Your task to perform on an android device: delete a single message in the gmail app Image 0: 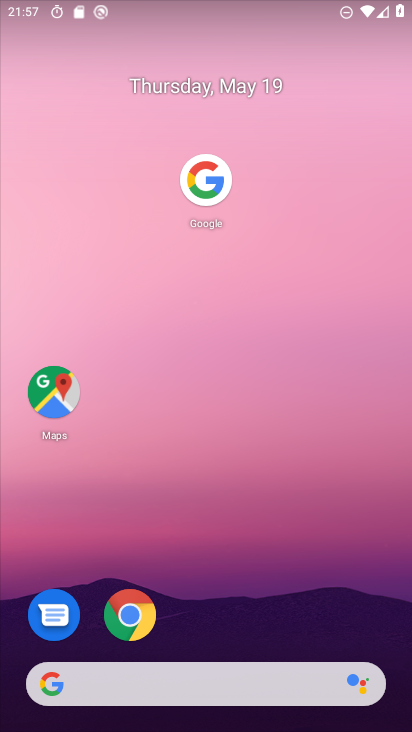
Step 0: drag from (245, 588) to (286, 82)
Your task to perform on an android device: delete a single message in the gmail app Image 1: 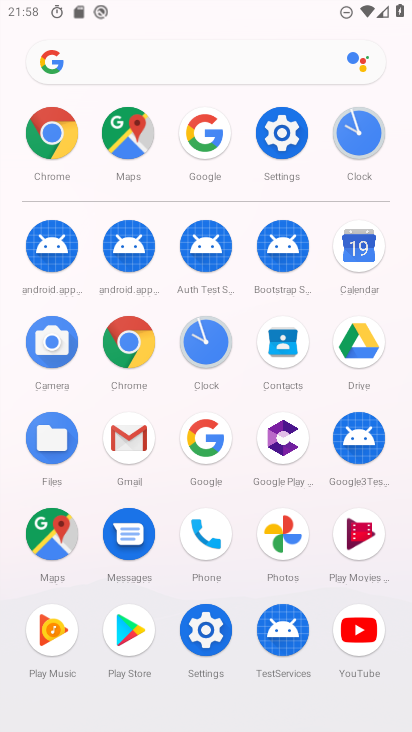
Step 1: click (125, 441)
Your task to perform on an android device: delete a single message in the gmail app Image 2: 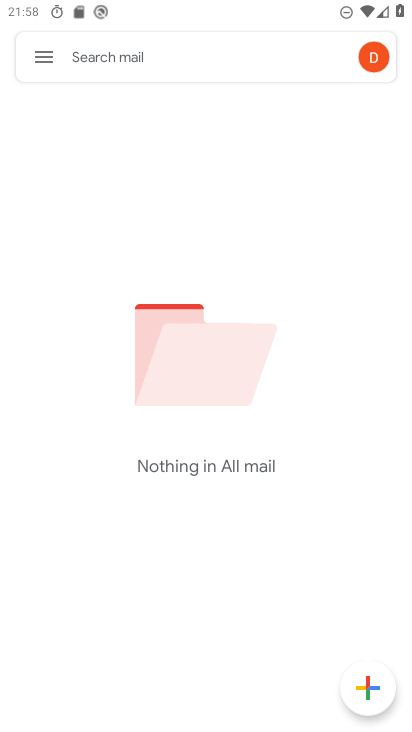
Step 2: task complete